Your task to perform on an android device: check storage Image 0: 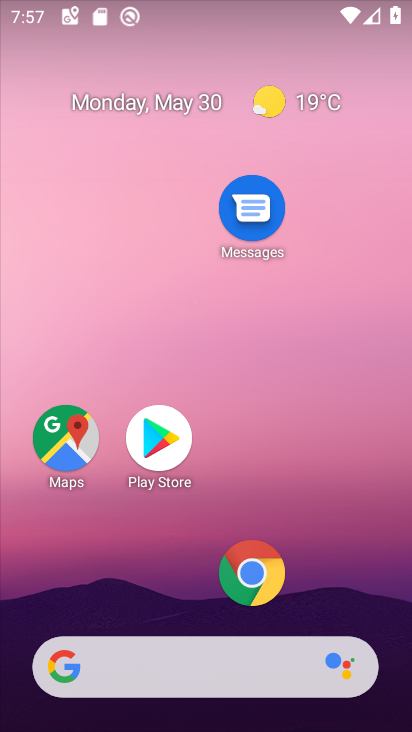
Step 0: drag from (133, 628) to (200, 0)
Your task to perform on an android device: check storage Image 1: 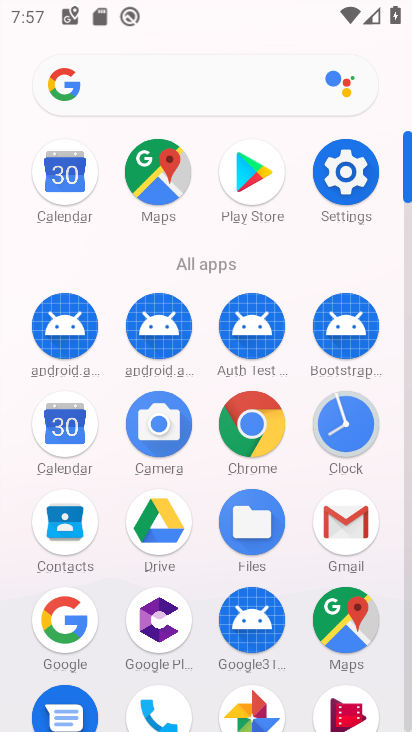
Step 1: click (360, 198)
Your task to perform on an android device: check storage Image 2: 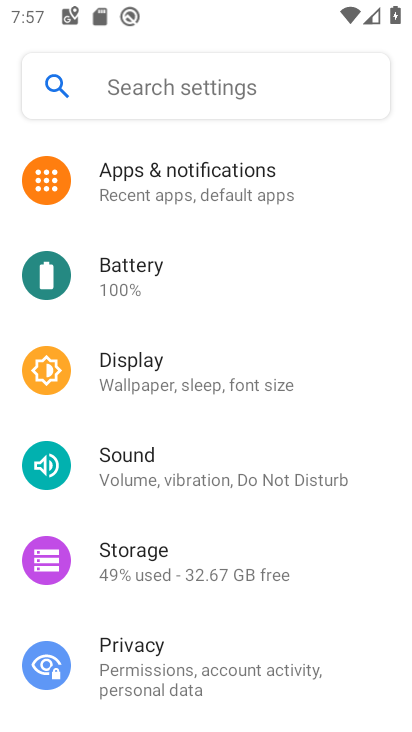
Step 2: click (128, 568)
Your task to perform on an android device: check storage Image 3: 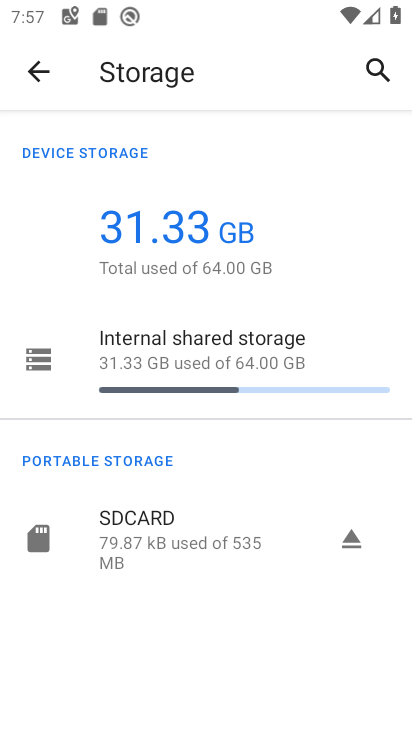
Step 3: click (194, 351)
Your task to perform on an android device: check storage Image 4: 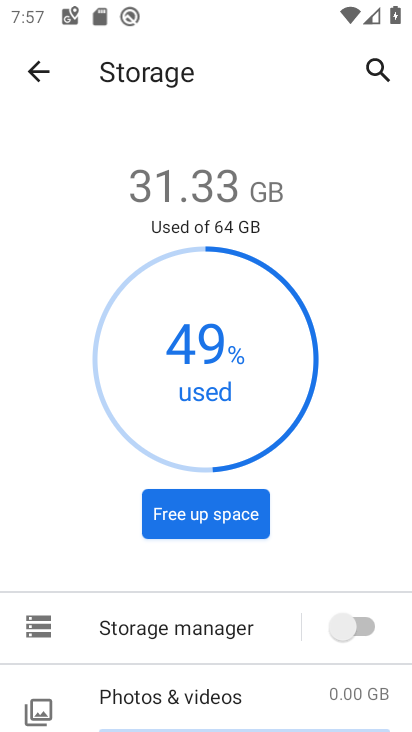
Step 4: task complete